Your task to perform on an android device: Open Yahoo.com Image 0: 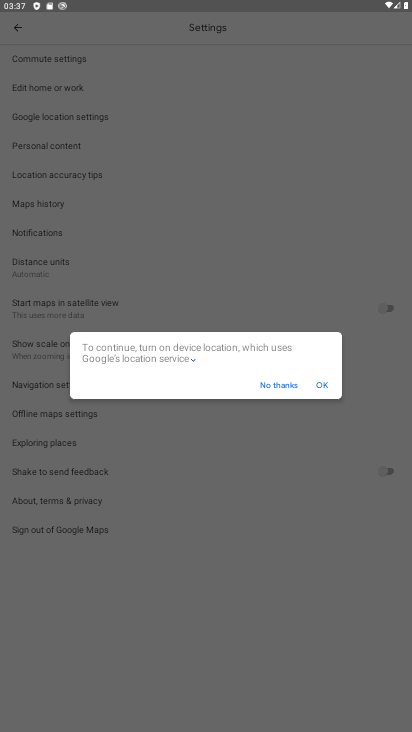
Step 0: press home button
Your task to perform on an android device: Open Yahoo.com Image 1: 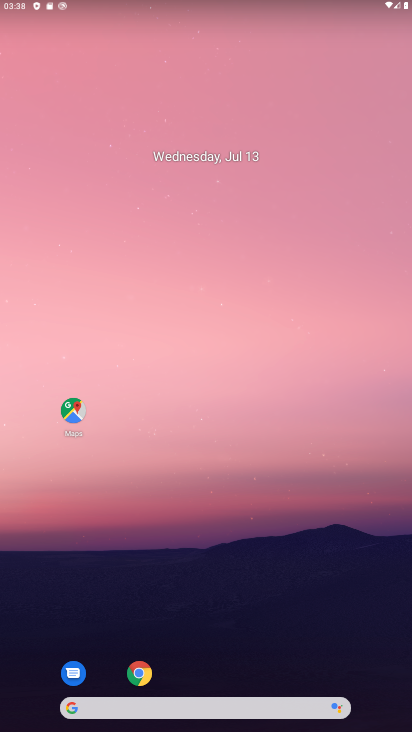
Step 1: drag from (253, 654) to (239, 131)
Your task to perform on an android device: Open Yahoo.com Image 2: 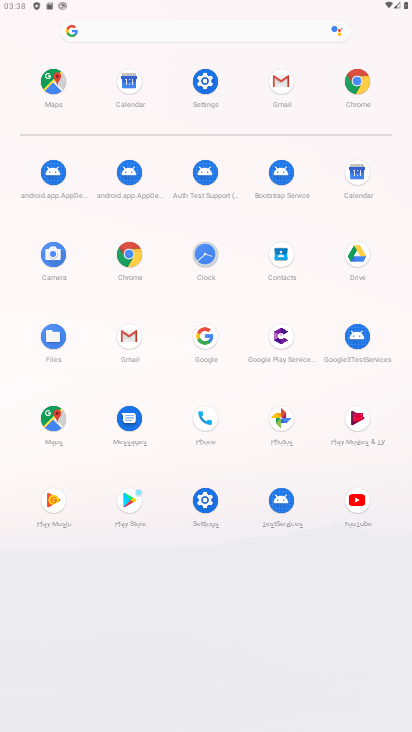
Step 2: click (128, 246)
Your task to perform on an android device: Open Yahoo.com Image 3: 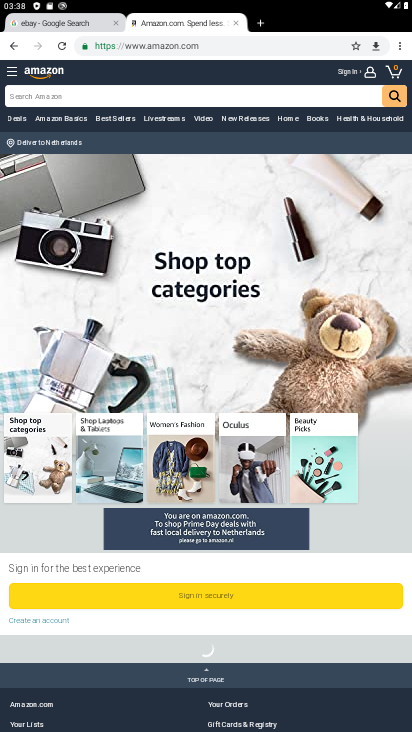
Step 3: click (272, 37)
Your task to perform on an android device: Open Yahoo.com Image 4: 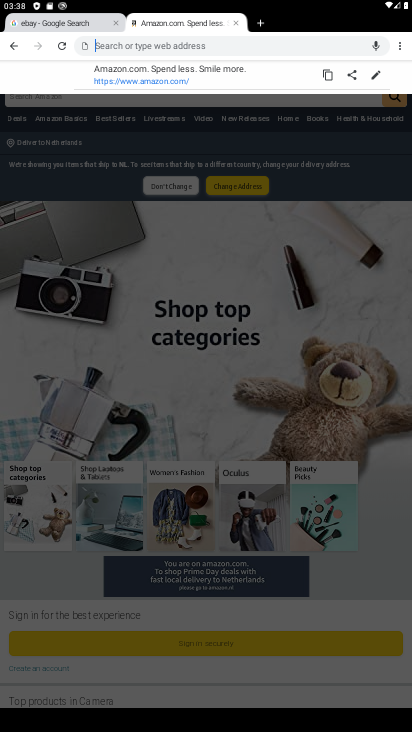
Step 4: type " Yahoo.com"
Your task to perform on an android device: Open Yahoo.com Image 5: 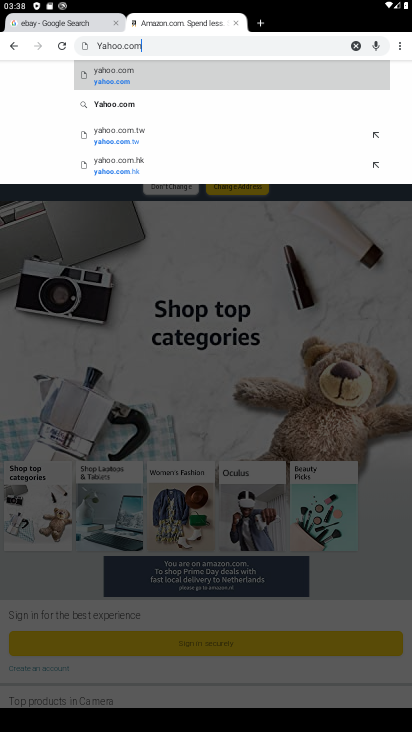
Step 5: click (120, 79)
Your task to perform on an android device: Open Yahoo.com Image 6: 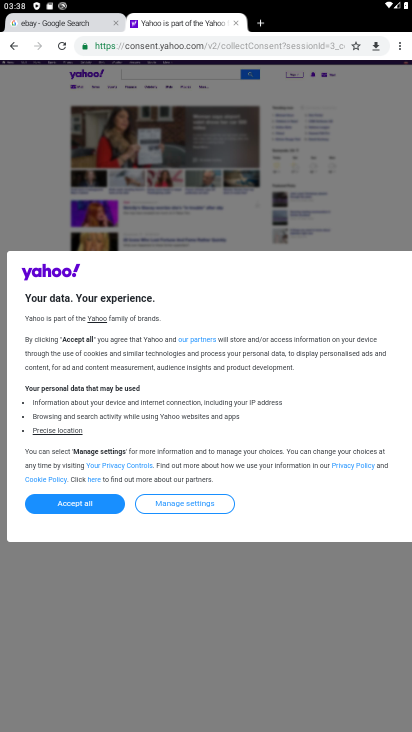
Step 6: click (65, 492)
Your task to perform on an android device: Open Yahoo.com Image 7: 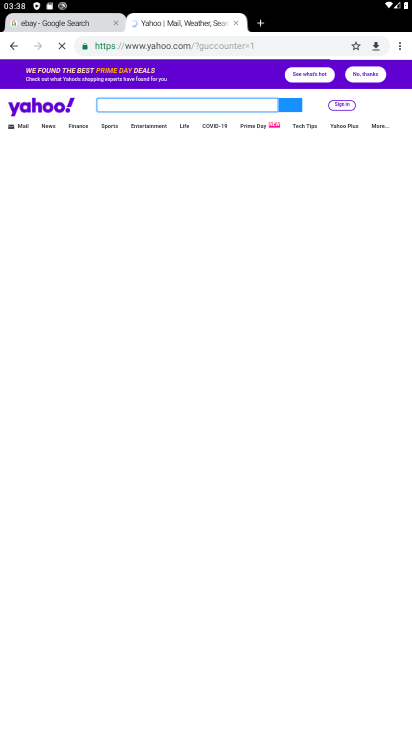
Step 7: task complete